Your task to perform on an android device: turn on wifi Image 0: 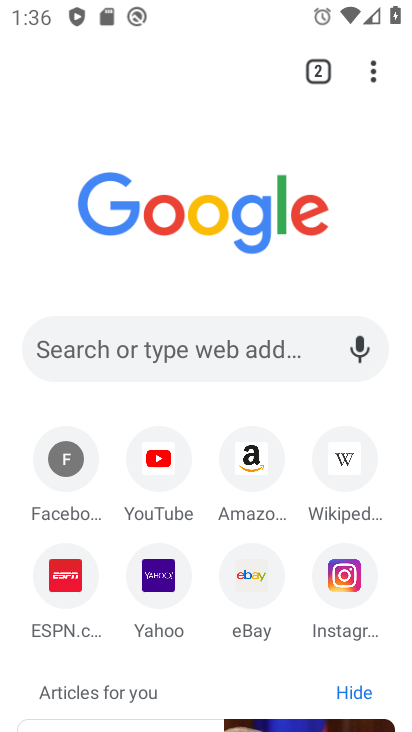
Step 0: click (376, 70)
Your task to perform on an android device: turn on wifi Image 1: 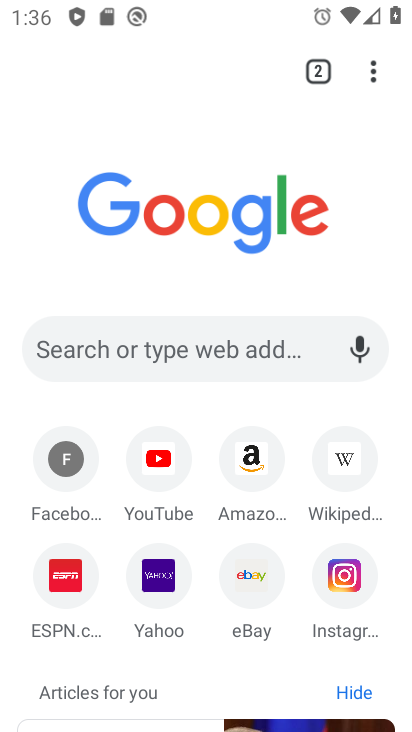
Step 1: click (375, 65)
Your task to perform on an android device: turn on wifi Image 2: 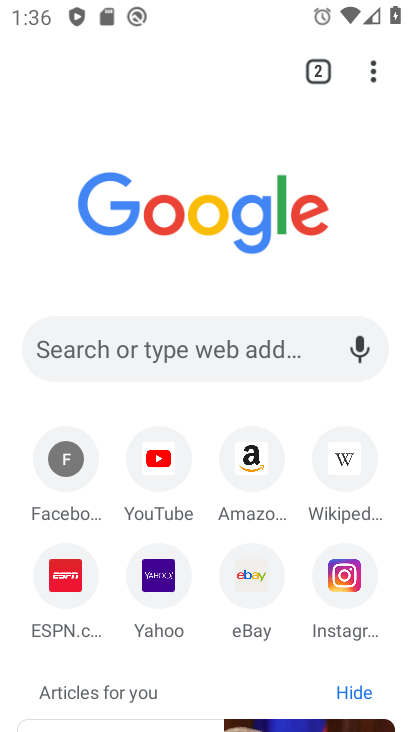
Step 2: click (369, 71)
Your task to perform on an android device: turn on wifi Image 3: 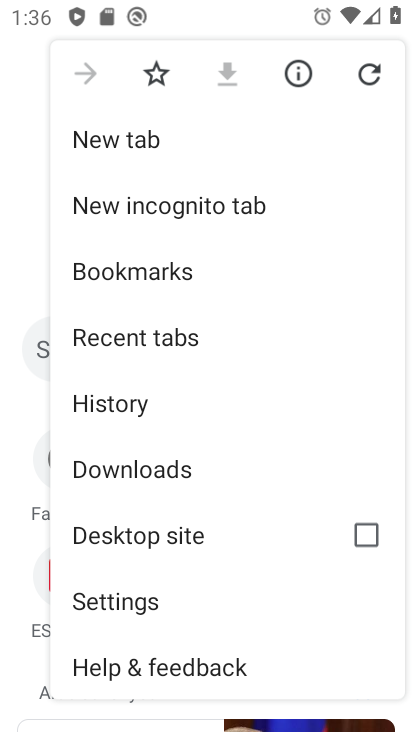
Step 3: click (133, 595)
Your task to perform on an android device: turn on wifi Image 4: 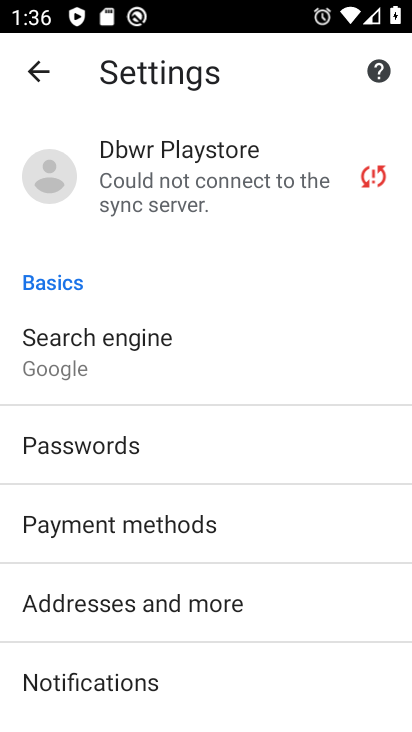
Step 4: drag from (270, 686) to (248, 365)
Your task to perform on an android device: turn on wifi Image 5: 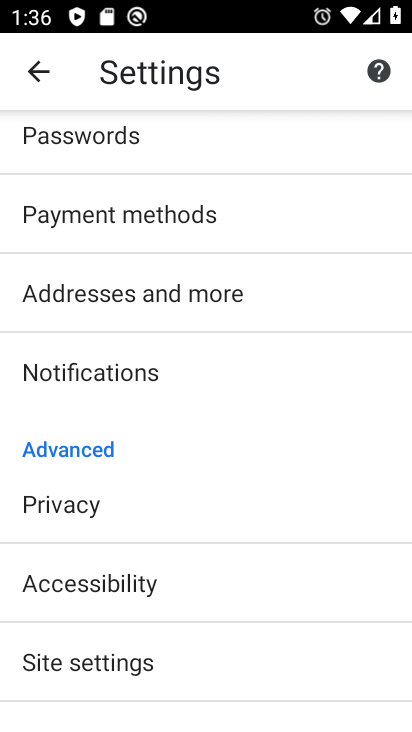
Step 5: click (42, 65)
Your task to perform on an android device: turn on wifi Image 6: 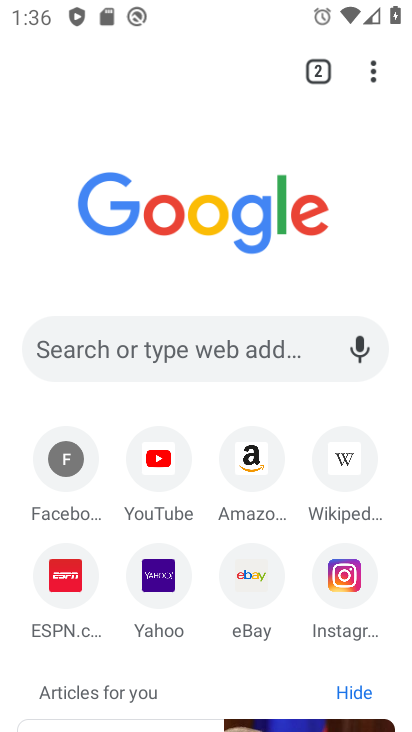
Step 6: press home button
Your task to perform on an android device: turn on wifi Image 7: 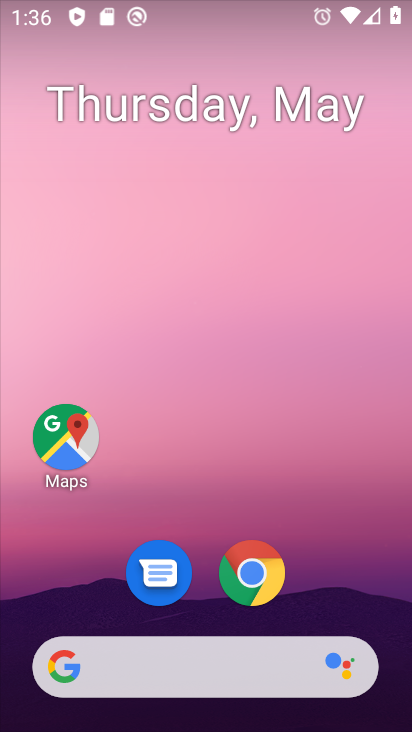
Step 7: drag from (407, 672) to (411, 245)
Your task to perform on an android device: turn on wifi Image 8: 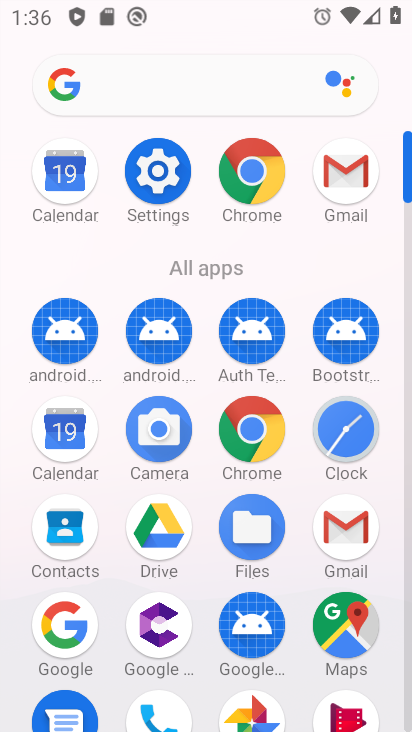
Step 8: click (146, 162)
Your task to perform on an android device: turn on wifi Image 9: 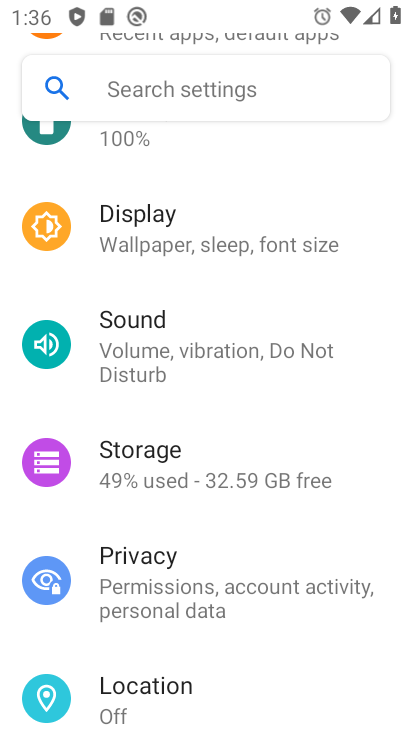
Step 9: drag from (348, 168) to (387, 560)
Your task to perform on an android device: turn on wifi Image 10: 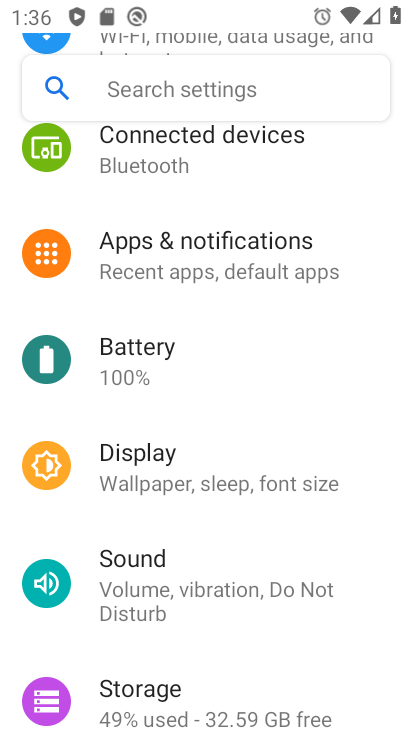
Step 10: drag from (356, 197) to (338, 504)
Your task to perform on an android device: turn on wifi Image 11: 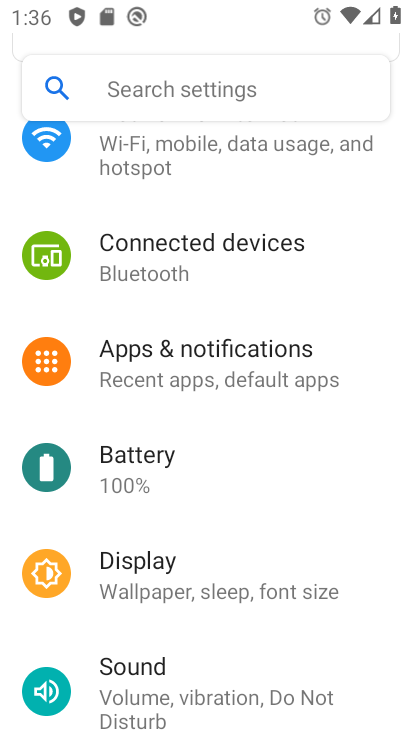
Step 11: click (153, 143)
Your task to perform on an android device: turn on wifi Image 12: 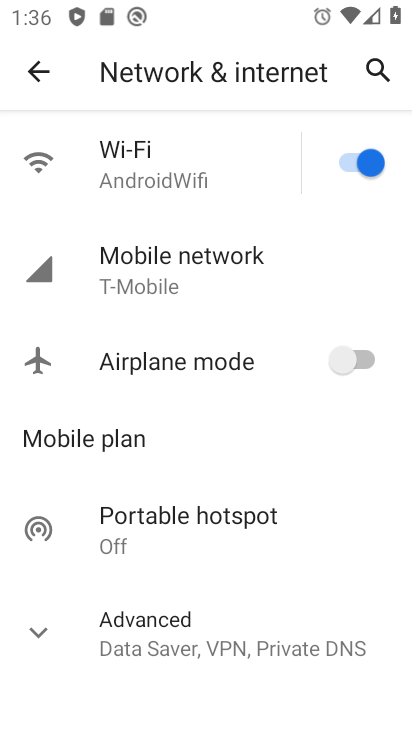
Step 12: task complete